Your task to perform on an android device: turn off location Image 0: 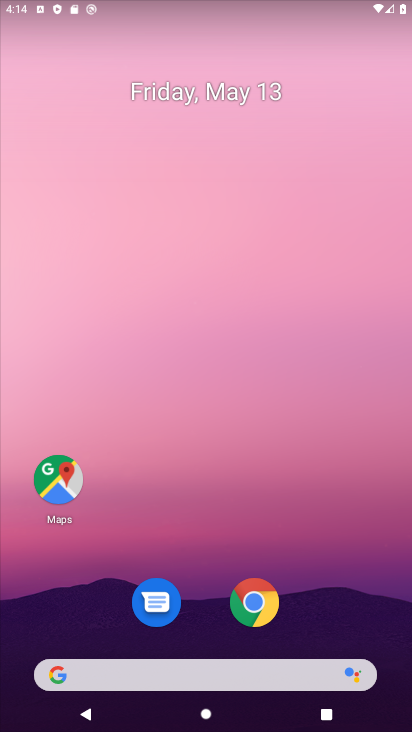
Step 0: drag from (141, 650) to (122, 175)
Your task to perform on an android device: turn off location Image 1: 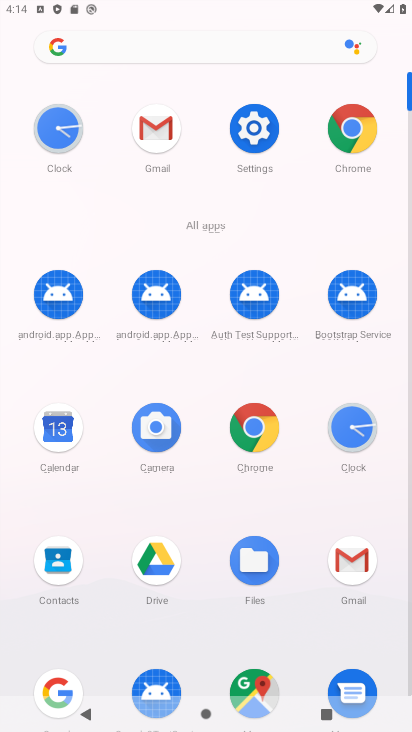
Step 1: click (246, 134)
Your task to perform on an android device: turn off location Image 2: 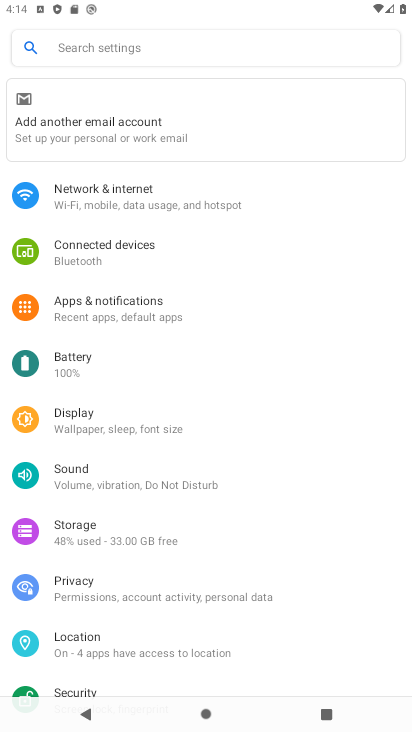
Step 2: click (101, 646)
Your task to perform on an android device: turn off location Image 3: 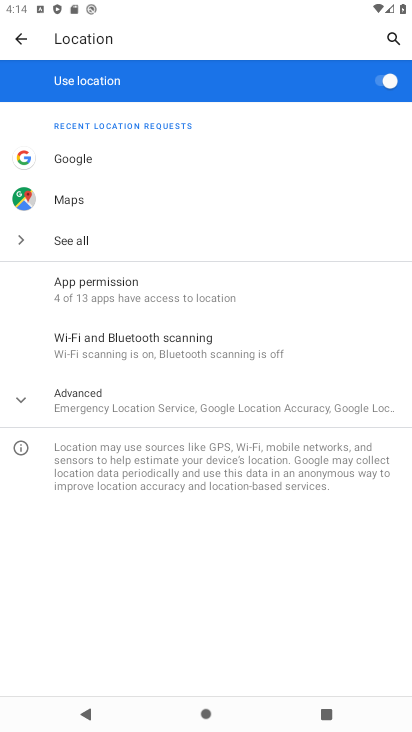
Step 3: click (382, 84)
Your task to perform on an android device: turn off location Image 4: 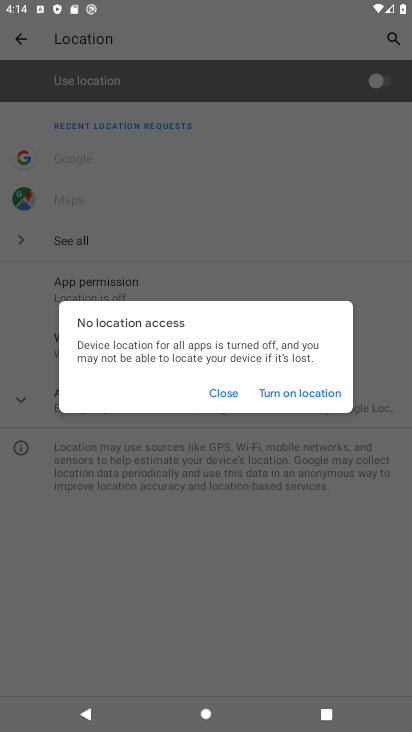
Step 4: click (212, 395)
Your task to perform on an android device: turn off location Image 5: 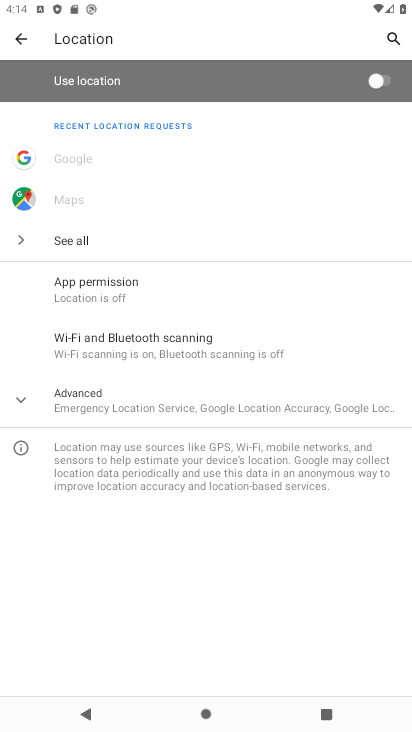
Step 5: task complete